Your task to perform on an android device: turn off javascript in the chrome app Image 0: 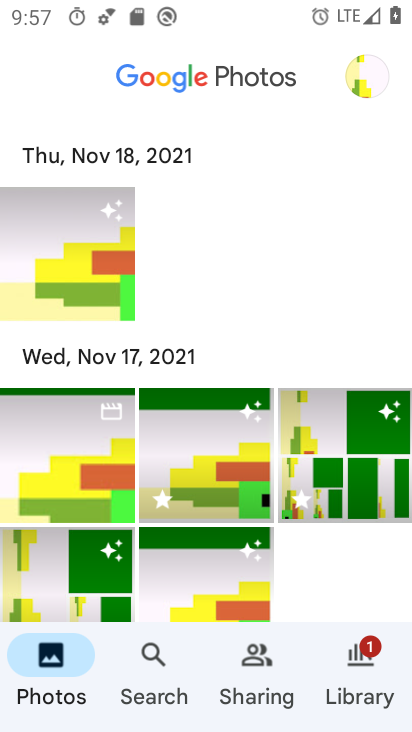
Step 0: press home button
Your task to perform on an android device: turn off javascript in the chrome app Image 1: 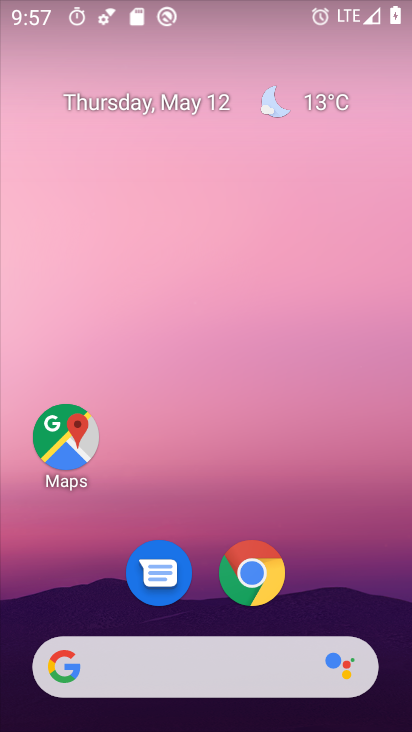
Step 1: click (247, 573)
Your task to perform on an android device: turn off javascript in the chrome app Image 2: 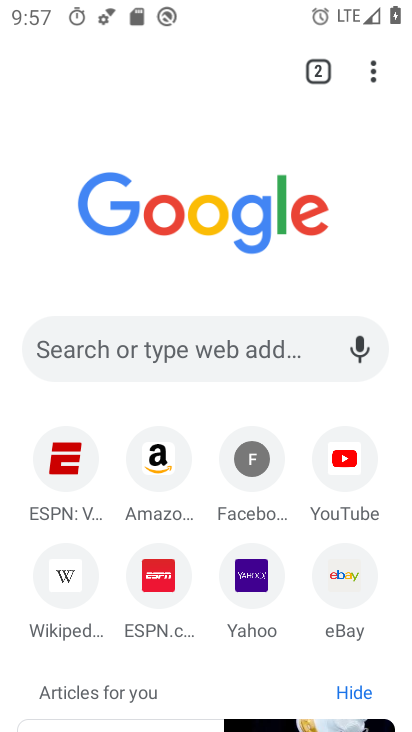
Step 2: click (372, 61)
Your task to perform on an android device: turn off javascript in the chrome app Image 3: 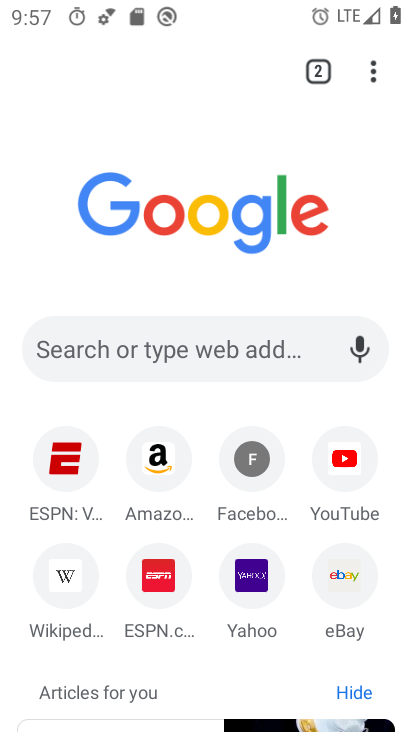
Step 3: click (373, 76)
Your task to perform on an android device: turn off javascript in the chrome app Image 4: 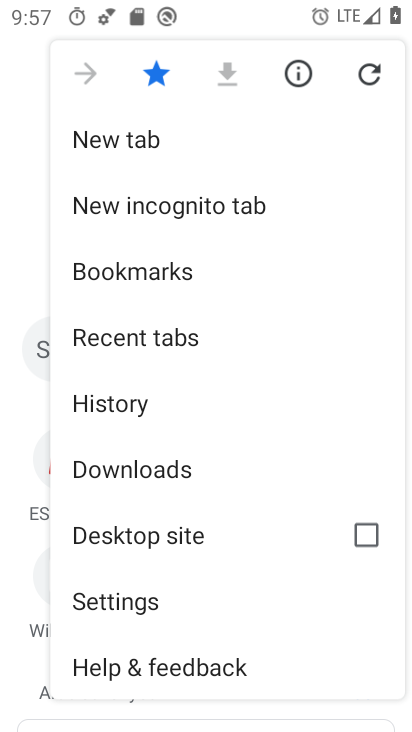
Step 4: click (120, 615)
Your task to perform on an android device: turn off javascript in the chrome app Image 5: 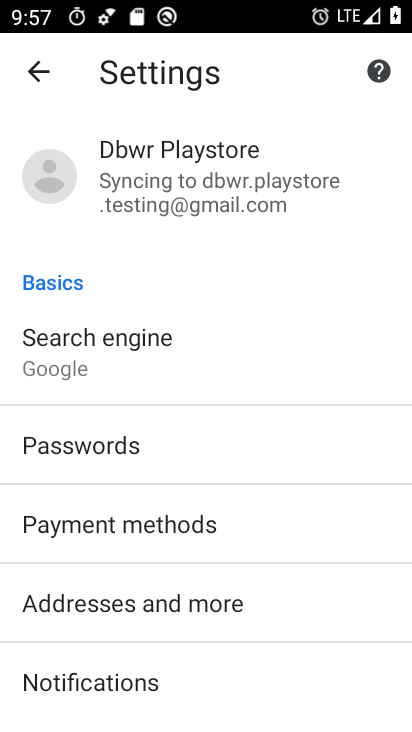
Step 5: drag from (238, 652) to (258, 398)
Your task to perform on an android device: turn off javascript in the chrome app Image 6: 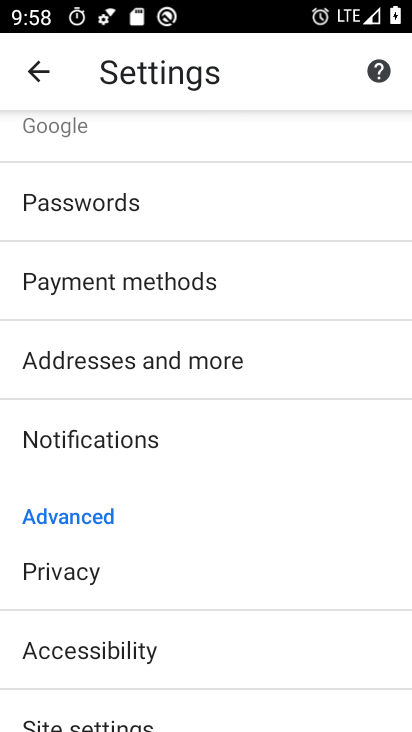
Step 6: drag from (342, 646) to (345, 354)
Your task to perform on an android device: turn off javascript in the chrome app Image 7: 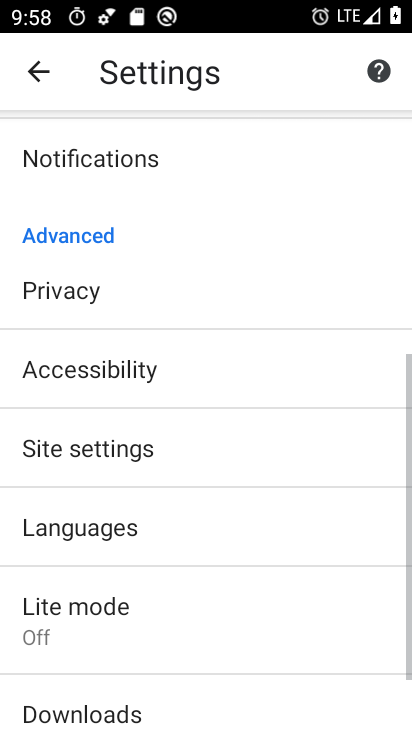
Step 7: drag from (264, 665) to (256, 486)
Your task to perform on an android device: turn off javascript in the chrome app Image 8: 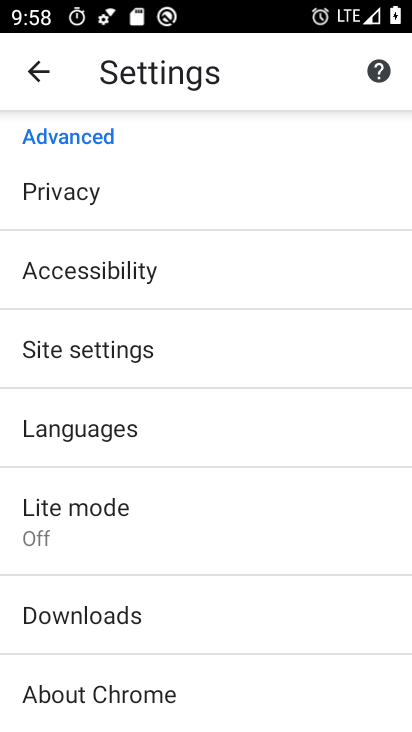
Step 8: click (45, 344)
Your task to perform on an android device: turn off javascript in the chrome app Image 9: 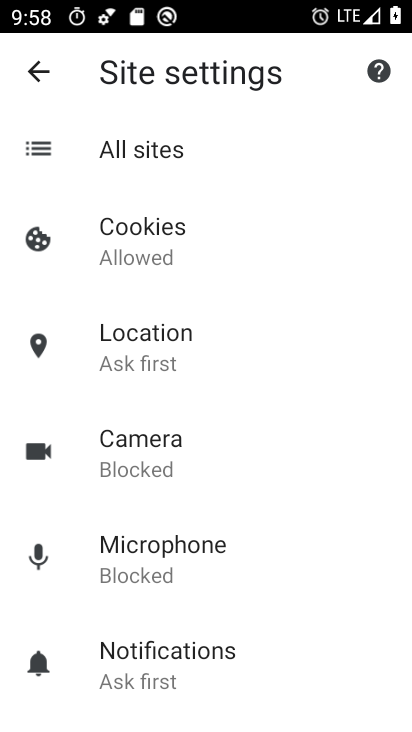
Step 9: drag from (284, 665) to (299, 391)
Your task to perform on an android device: turn off javascript in the chrome app Image 10: 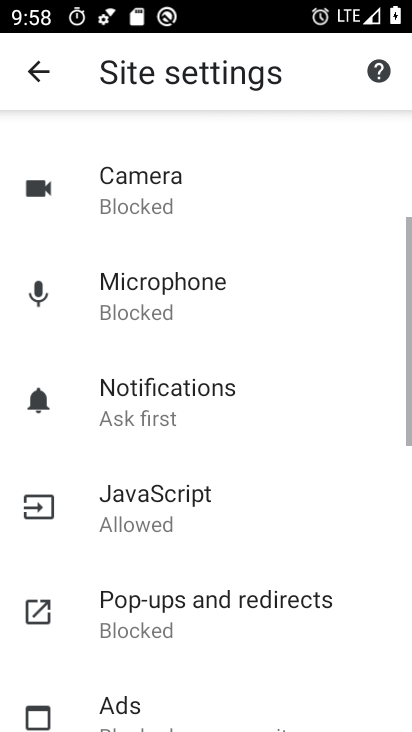
Step 10: click (146, 515)
Your task to perform on an android device: turn off javascript in the chrome app Image 11: 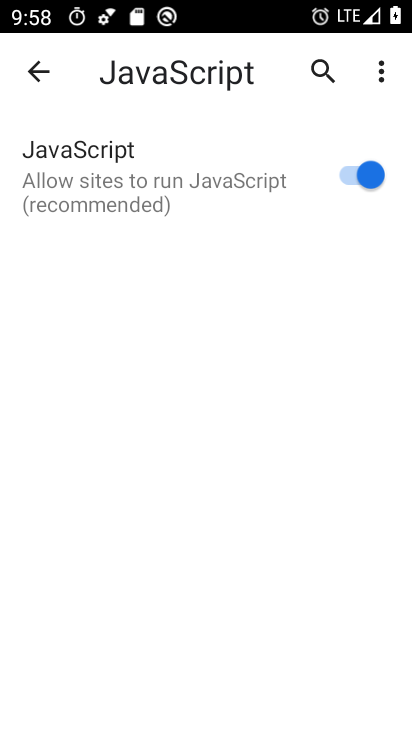
Step 11: click (346, 172)
Your task to perform on an android device: turn off javascript in the chrome app Image 12: 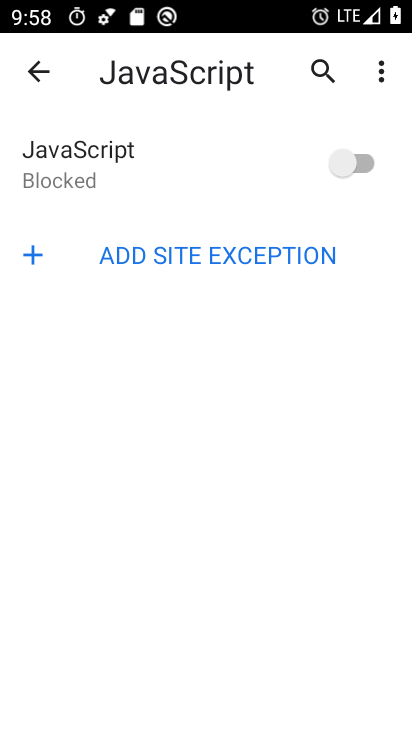
Step 12: task complete